Your task to perform on an android device: Open Android settings Image 0: 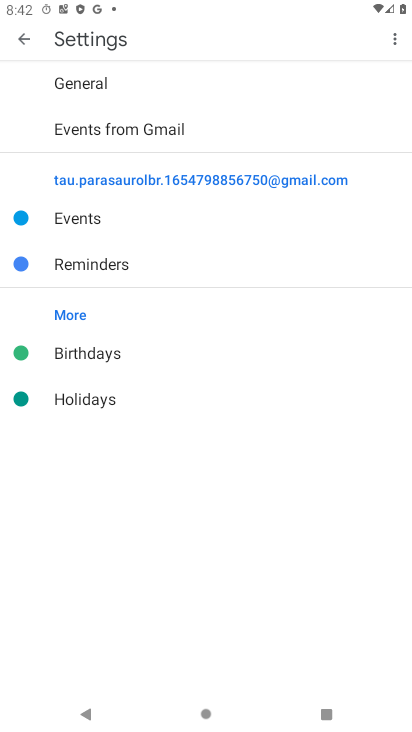
Step 0: press back button
Your task to perform on an android device: Open Android settings Image 1: 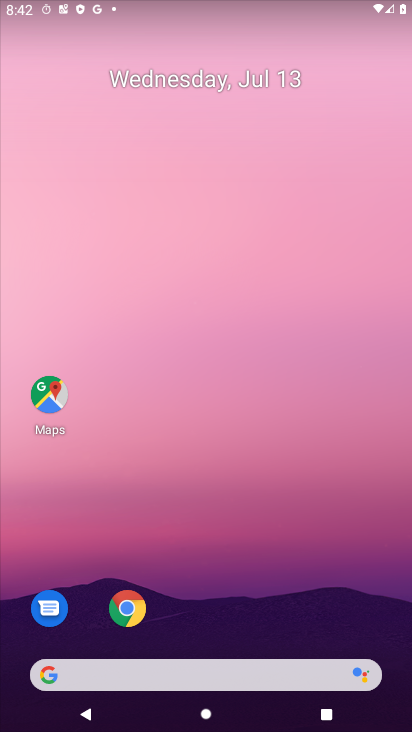
Step 1: drag from (278, 646) to (199, 284)
Your task to perform on an android device: Open Android settings Image 2: 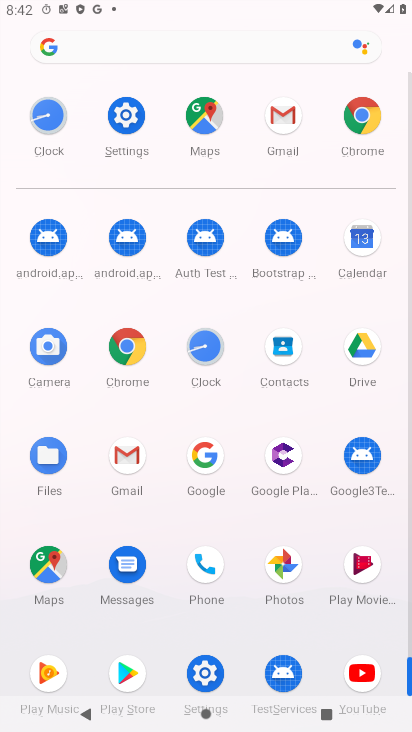
Step 2: click (125, 118)
Your task to perform on an android device: Open Android settings Image 3: 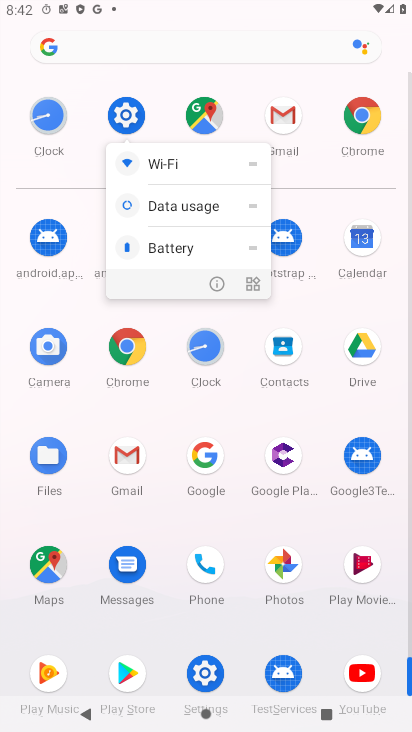
Step 3: click (122, 119)
Your task to perform on an android device: Open Android settings Image 4: 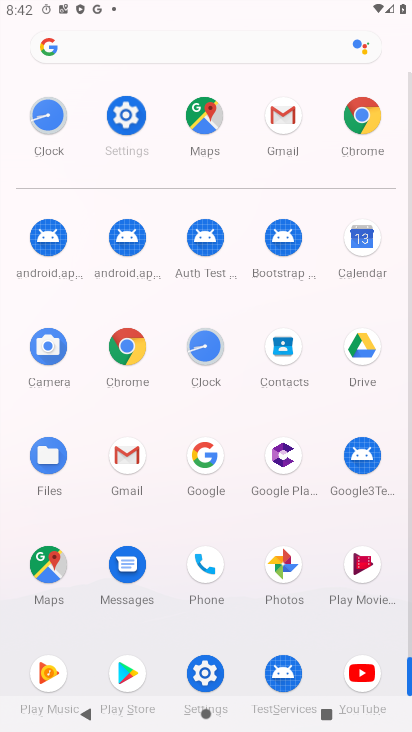
Step 4: click (125, 118)
Your task to perform on an android device: Open Android settings Image 5: 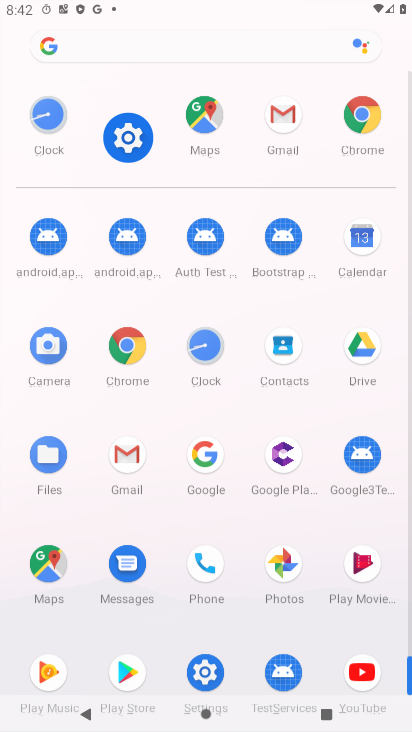
Step 5: click (127, 114)
Your task to perform on an android device: Open Android settings Image 6: 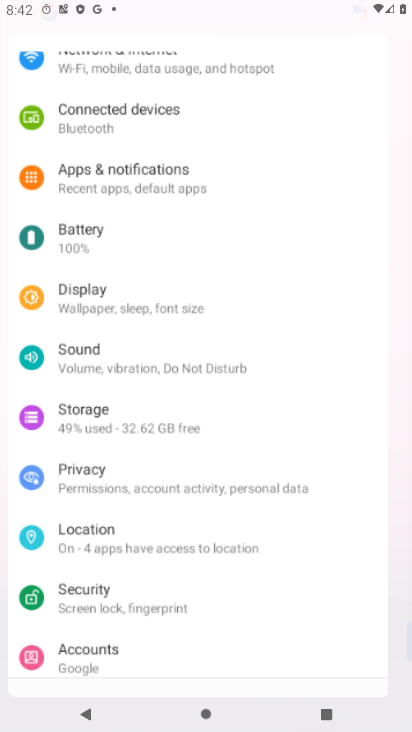
Step 6: click (127, 114)
Your task to perform on an android device: Open Android settings Image 7: 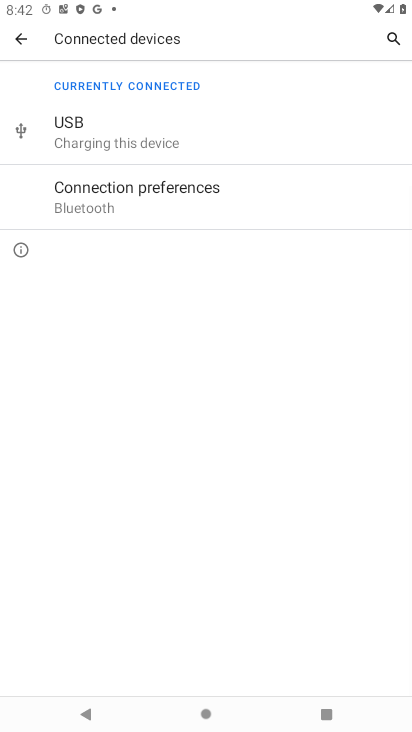
Step 7: click (19, 34)
Your task to perform on an android device: Open Android settings Image 8: 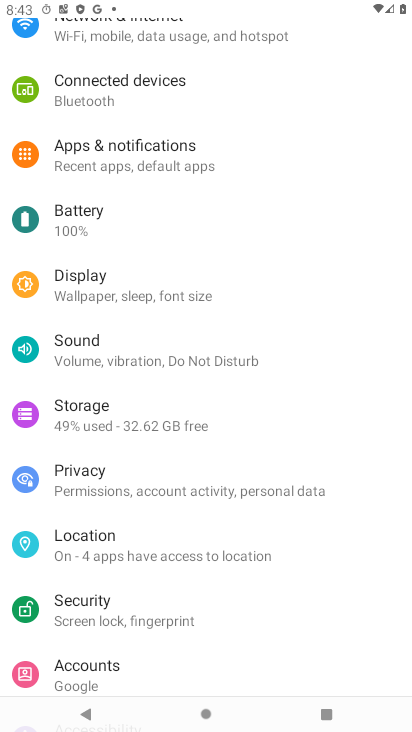
Step 8: drag from (145, 598) to (132, 127)
Your task to perform on an android device: Open Android settings Image 9: 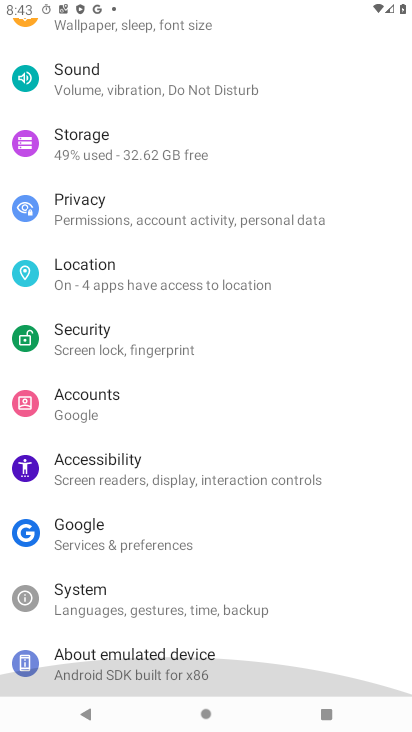
Step 9: drag from (130, 481) to (129, 136)
Your task to perform on an android device: Open Android settings Image 10: 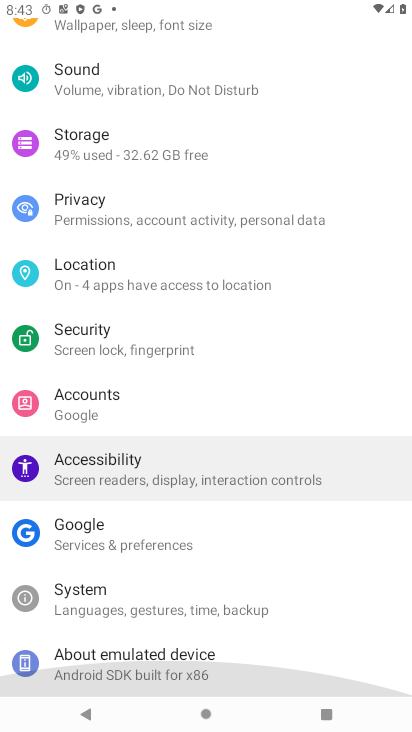
Step 10: drag from (130, 416) to (150, 77)
Your task to perform on an android device: Open Android settings Image 11: 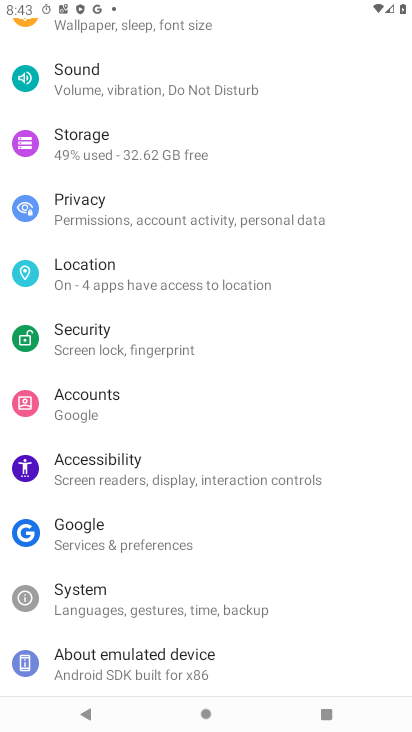
Step 11: click (124, 666)
Your task to perform on an android device: Open Android settings Image 12: 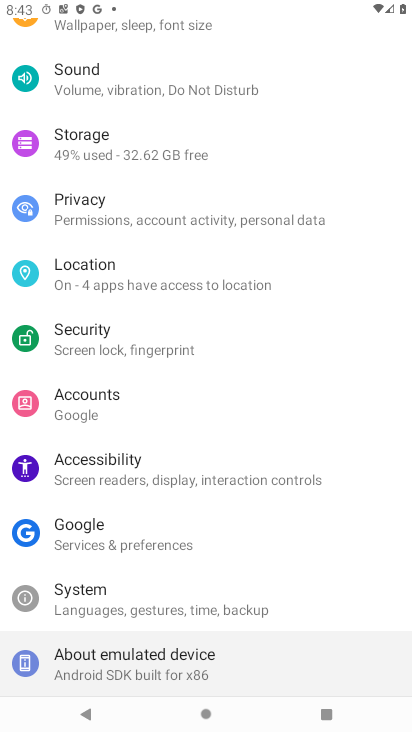
Step 12: click (125, 666)
Your task to perform on an android device: Open Android settings Image 13: 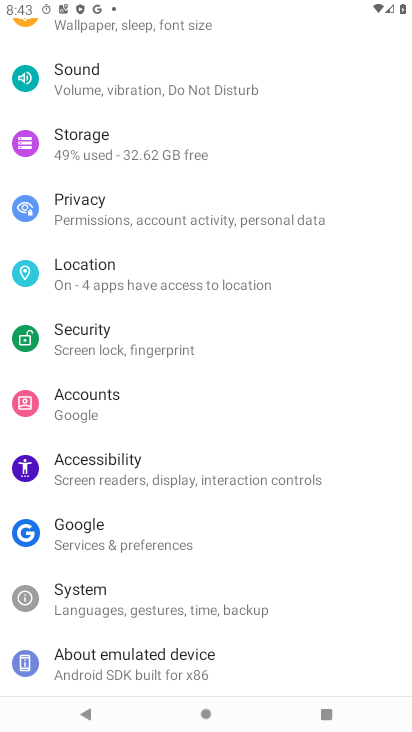
Step 13: click (126, 666)
Your task to perform on an android device: Open Android settings Image 14: 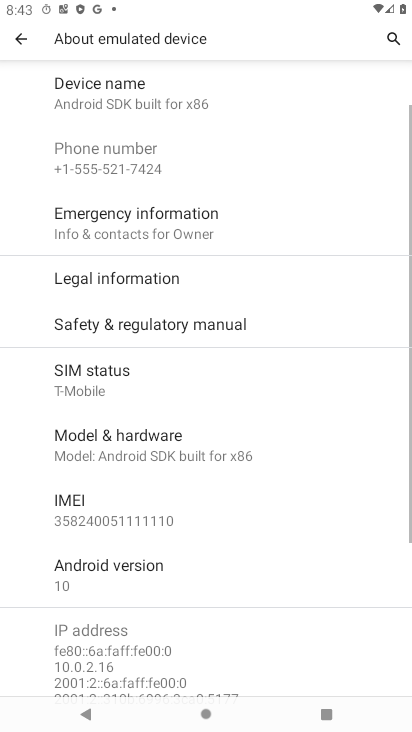
Step 14: task complete